Your task to perform on an android device: When is my next appointment? Image 0: 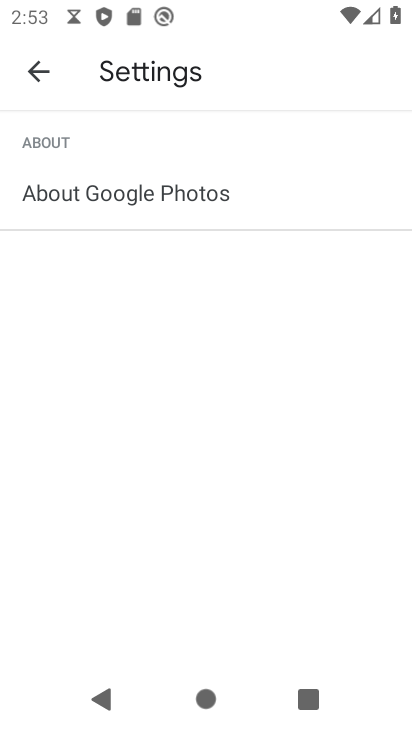
Step 0: press home button
Your task to perform on an android device: When is my next appointment? Image 1: 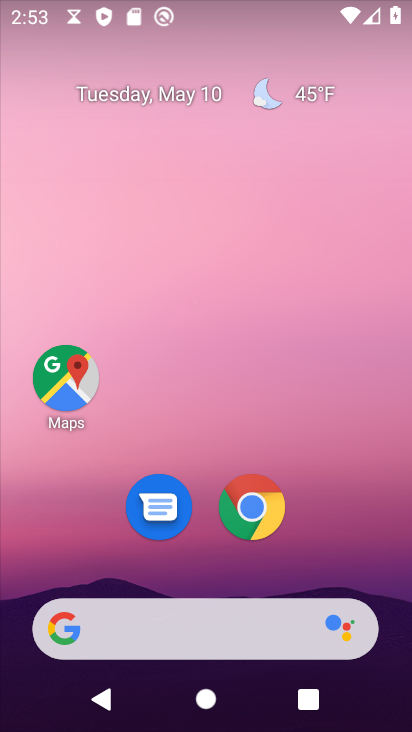
Step 1: drag from (312, 528) to (98, 51)
Your task to perform on an android device: When is my next appointment? Image 2: 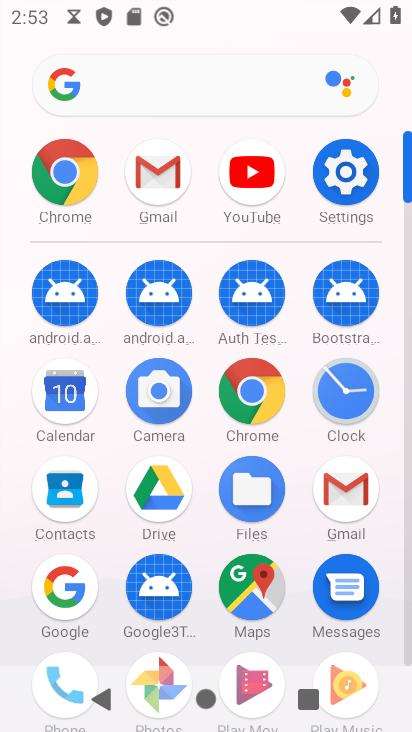
Step 2: click (66, 403)
Your task to perform on an android device: When is my next appointment? Image 3: 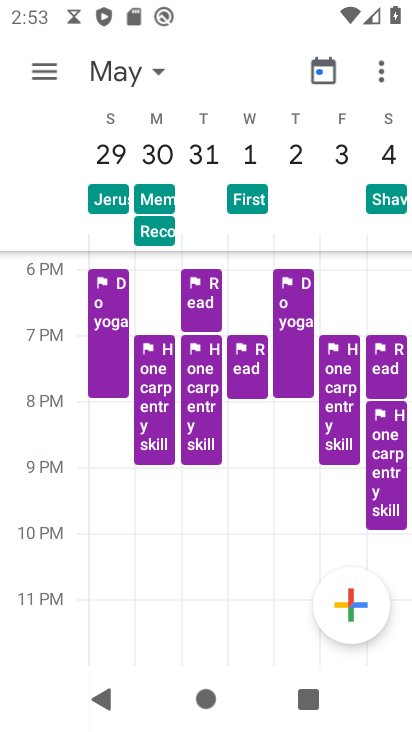
Step 3: click (135, 73)
Your task to perform on an android device: When is my next appointment? Image 4: 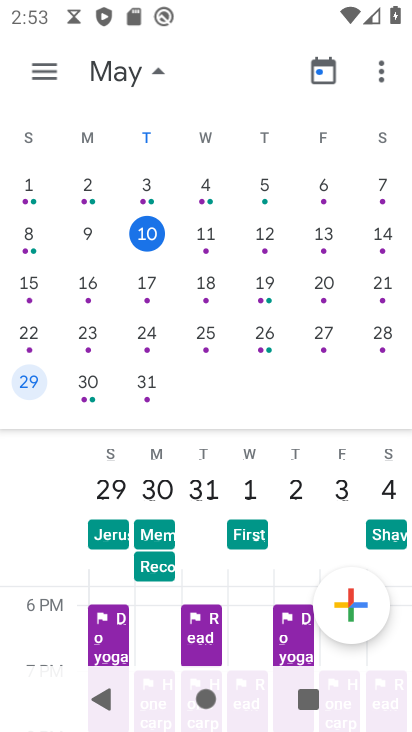
Step 4: click (163, 235)
Your task to perform on an android device: When is my next appointment? Image 5: 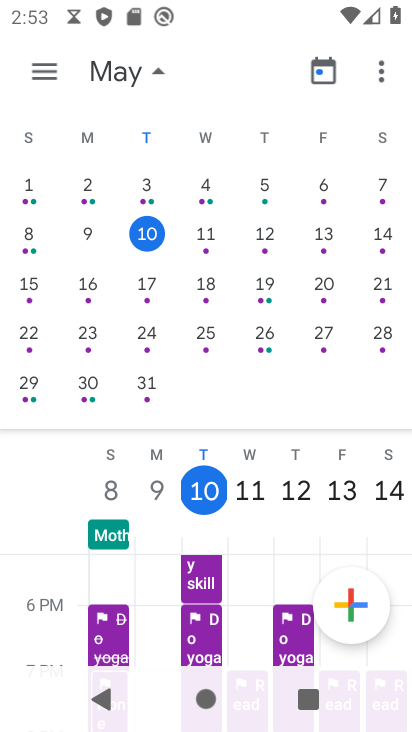
Step 5: click (34, 63)
Your task to perform on an android device: When is my next appointment? Image 6: 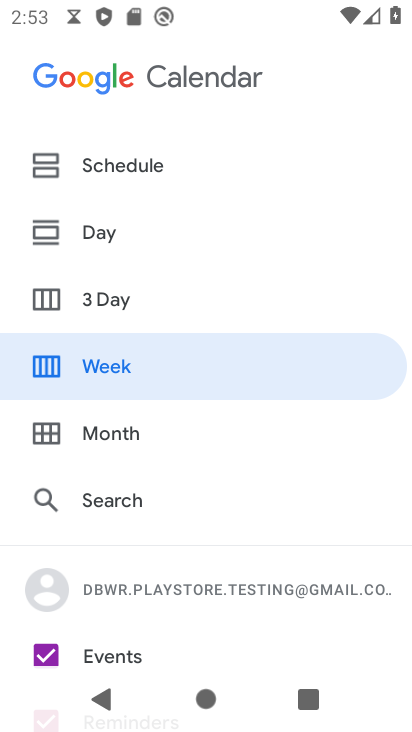
Step 6: click (95, 163)
Your task to perform on an android device: When is my next appointment? Image 7: 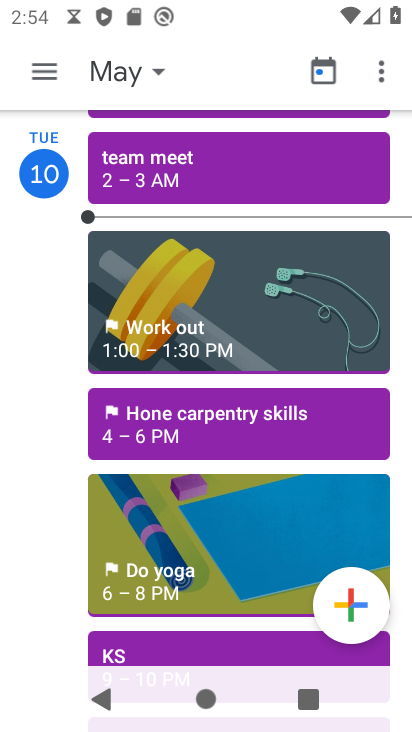
Step 7: click (287, 428)
Your task to perform on an android device: When is my next appointment? Image 8: 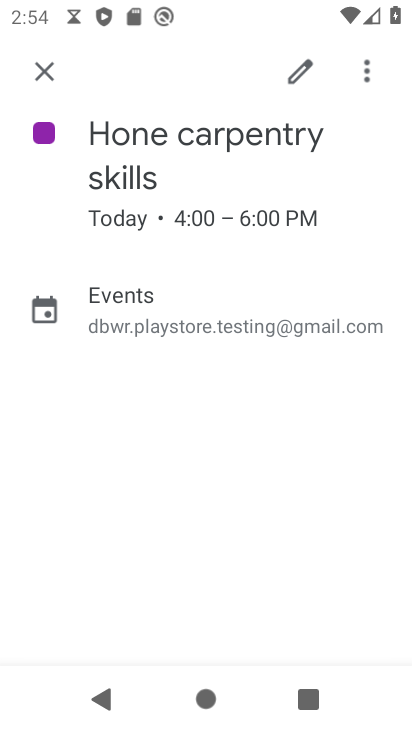
Step 8: task complete